Your task to perform on an android device: Open wifi settings Image 0: 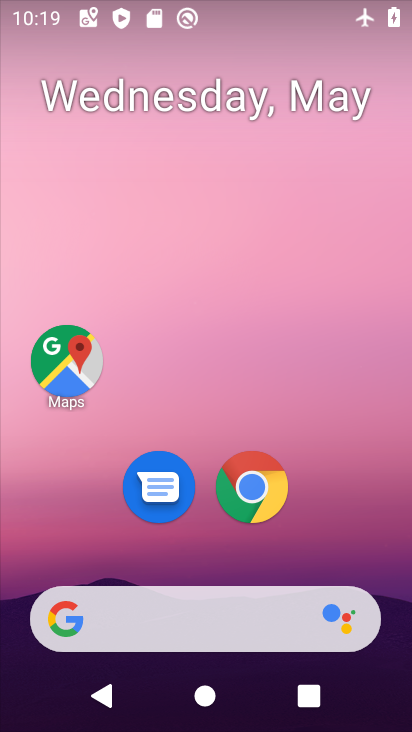
Step 0: drag from (207, 566) to (400, 220)
Your task to perform on an android device: Open wifi settings Image 1: 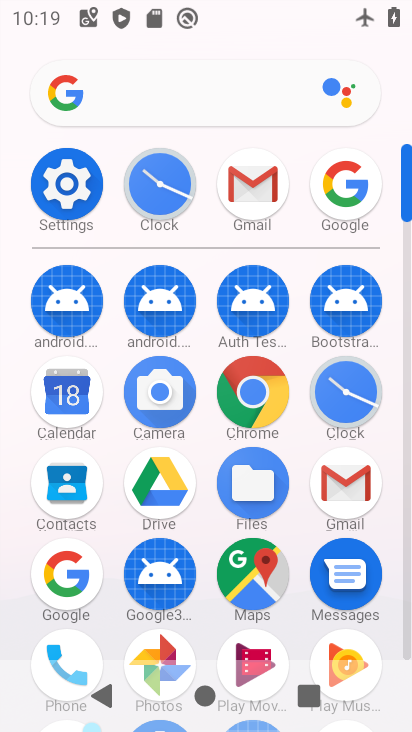
Step 1: click (53, 201)
Your task to perform on an android device: Open wifi settings Image 2: 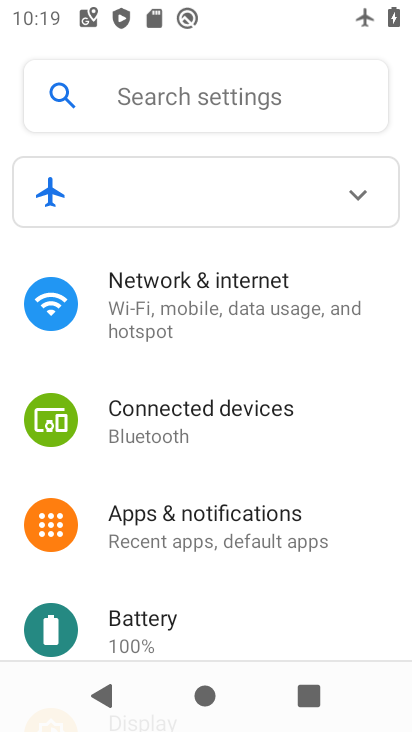
Step 2: click (156, 275)
Your task to perform on an android device: Open wifi settings Image 3: 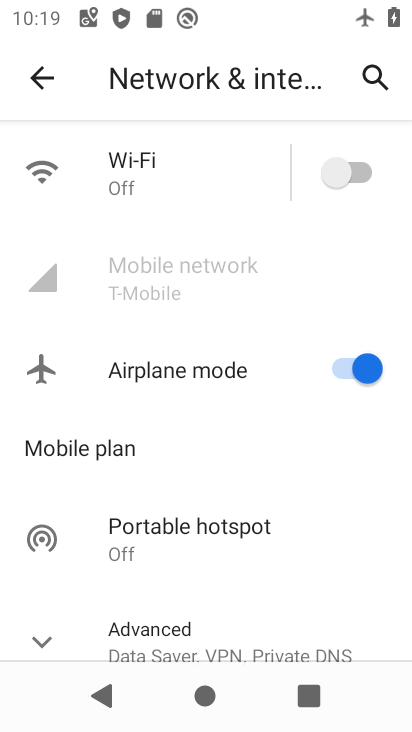
Step 3: click (248, 171)
Your task to perform on an android device: Open wifi settings Image 4: 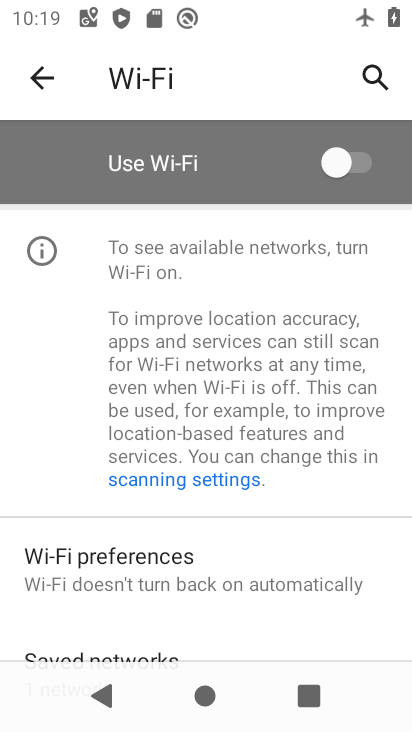
Step 4: task complete